Your task to perform on an android device: Go to CNN.com Image 0: 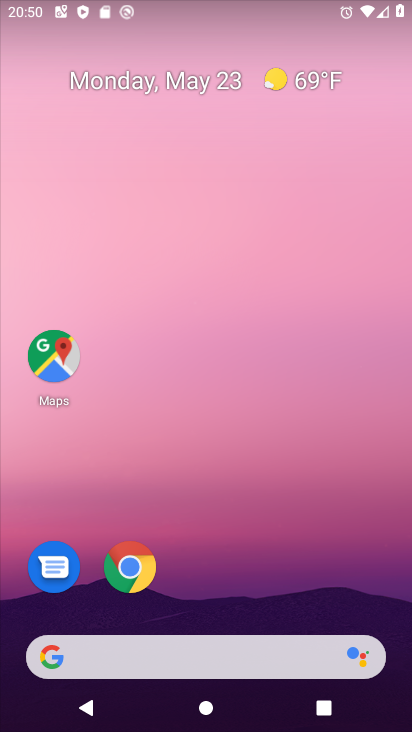
Step 0: click (141, 565)
Your task to perform on an android device: Go to CNN.com Image 1: 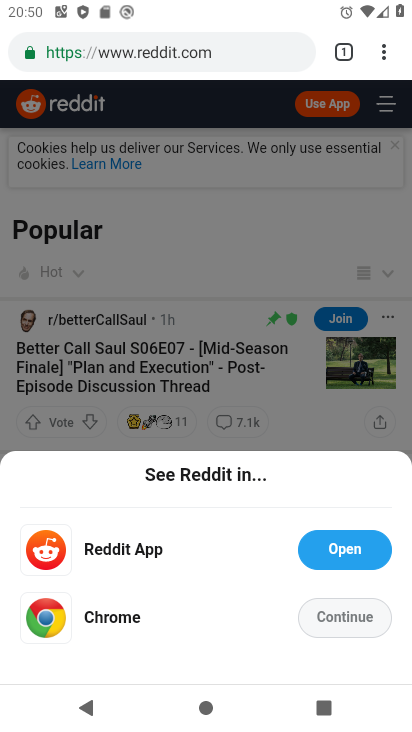
Step 1: click (168, 56)
Your task to perform on an android device: Go to CNN.com Image 2: 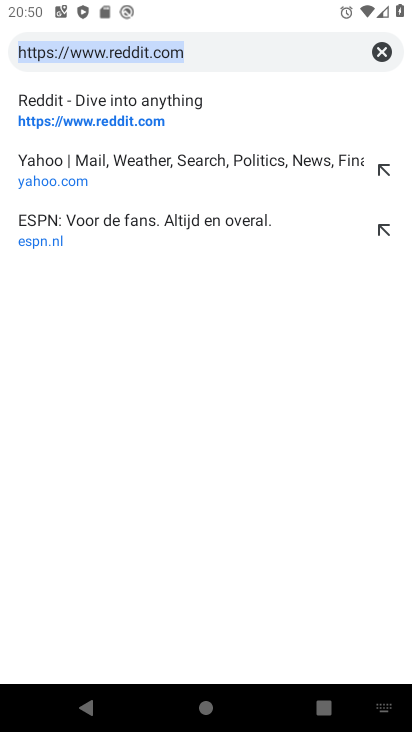
Step 2: type "CNN.com"
Your task to perform on an android device: Go to CNN.com Image 3: 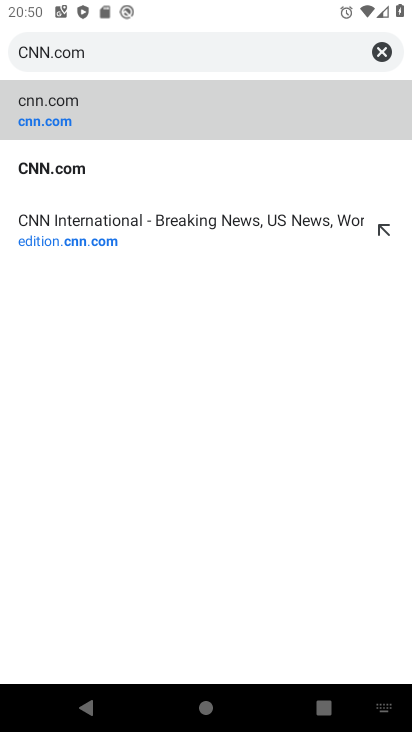
Step 3: click (100, 163)
Your task to perform on an android device: Go to CNN.com Image 4: 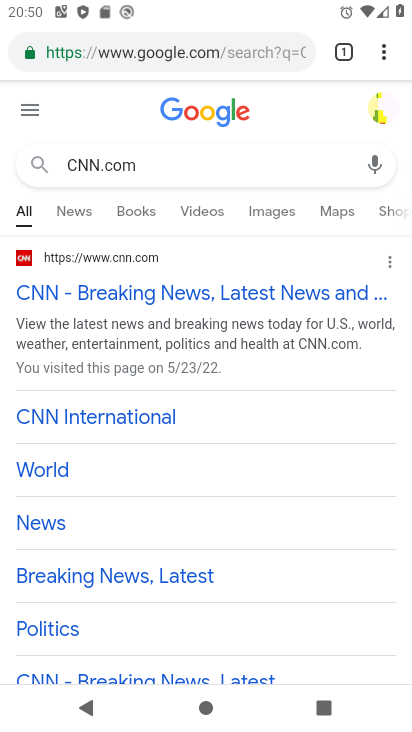
Step 4: task complete